Your task to perform on an android device: turn on showing notifications on the lock screen Image 0: 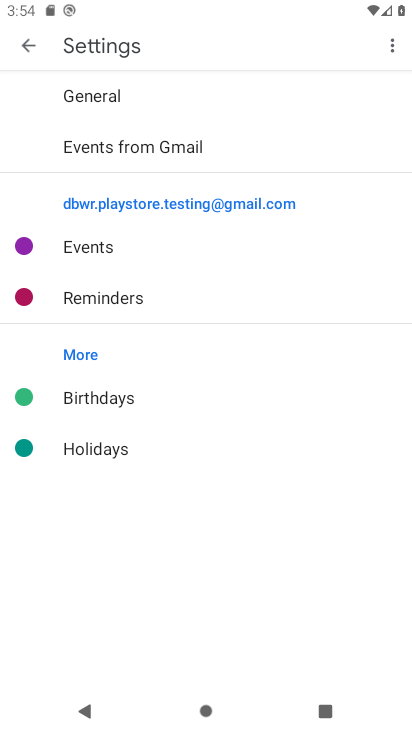
Step 0: press home button
Your task to perform on an android device: turn on showing notifications on the lock screen Image 1: 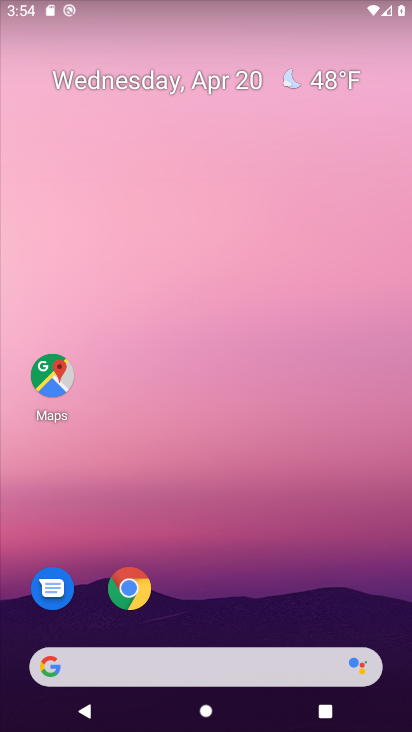
Step 1: drag from (332, 602) to (372, 216)
Your task to perform on an android device: turn on showing notifications on the lock screen Image 2: 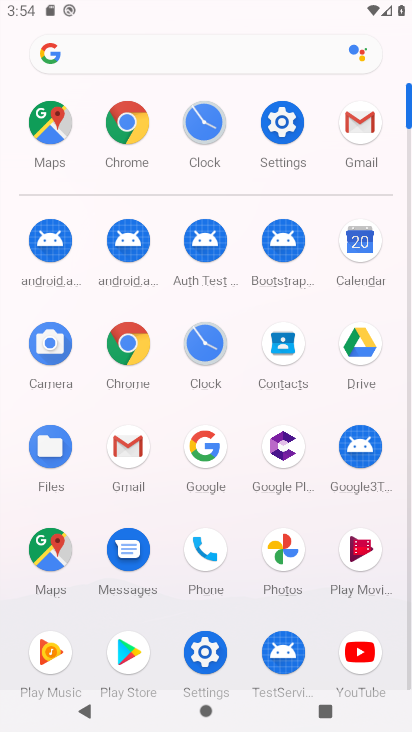
Step 2: click (200, 645)
Your task to perform on an android device: turn on showing notifications on the lock screen Image 3: 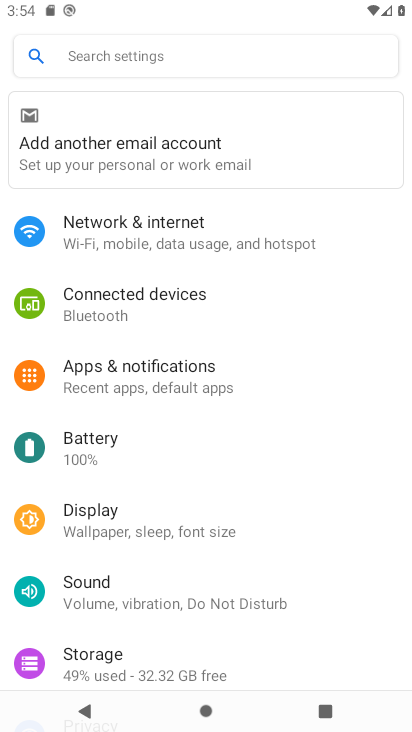
Step 3: drag from (343, 614) to (339, 477)
Your task to perform on an android device: turn on showing notifications on the lock screen Image 4: 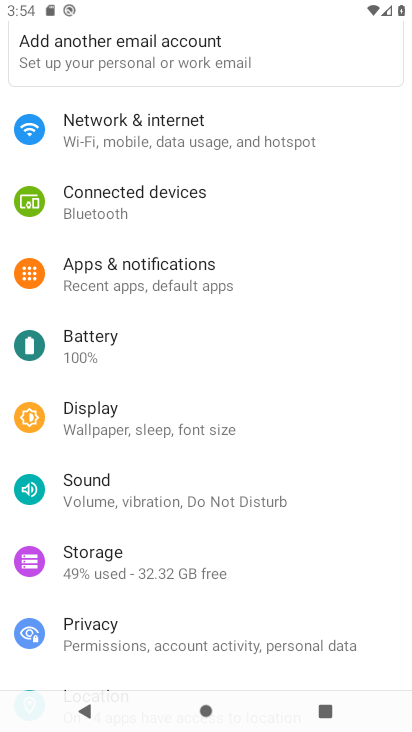
Step 4: drag from (340, 577) to (405, 404)
Your task to perform on an android device: turn on showing notifications on the lock screen Image 5: 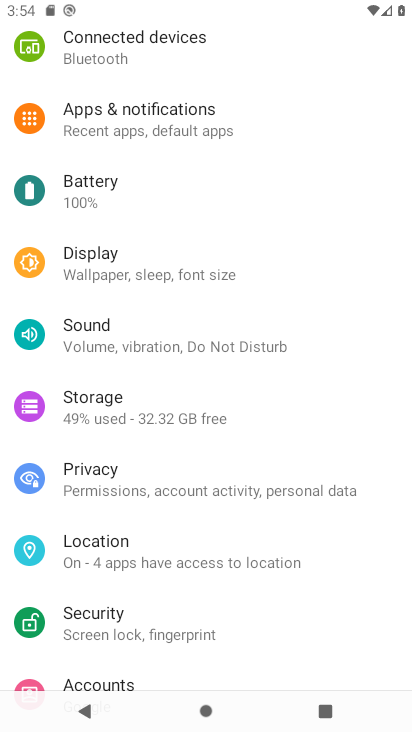
Step 5: drag from (333, 579) to (343, 430)
Your task to perform on an android device: turn on showing notifications on the lock screen Image 6: 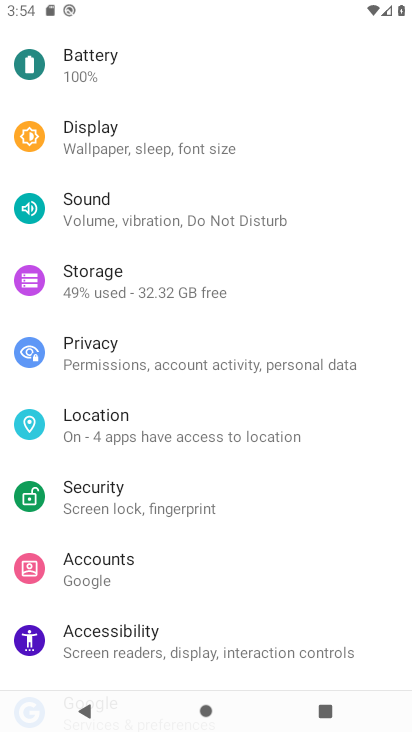
Step 6: drag from (320, 586) to (344, 393)
Your task to perform on an android device: turn on showing notifications on the lock screen Image 7: 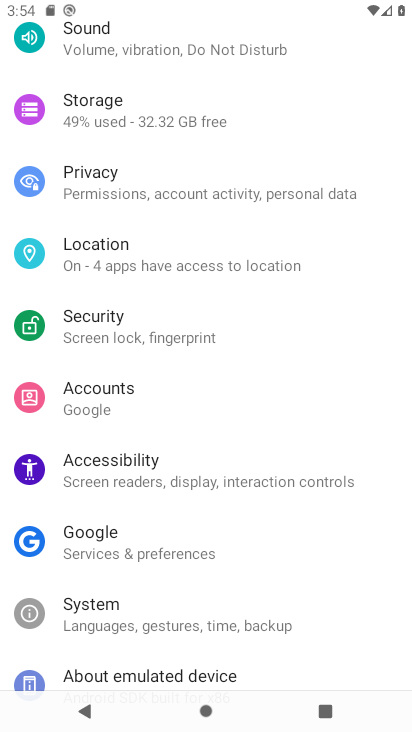
Step 7: drag from (328, 609) to (323, 420)
Your task to perform on an android device: turn on showing notifications on the lock screen Image 8: 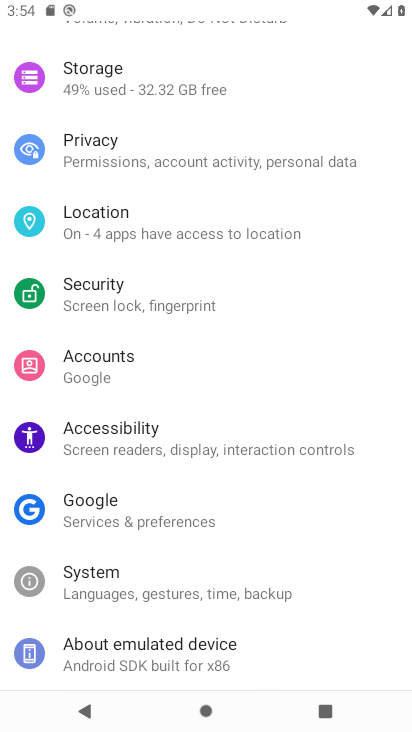
Step 8: drag from (338, 325) to (310, 506)
Your task to perform on an android device: turn on showing notifications on the lock screen Image 9: 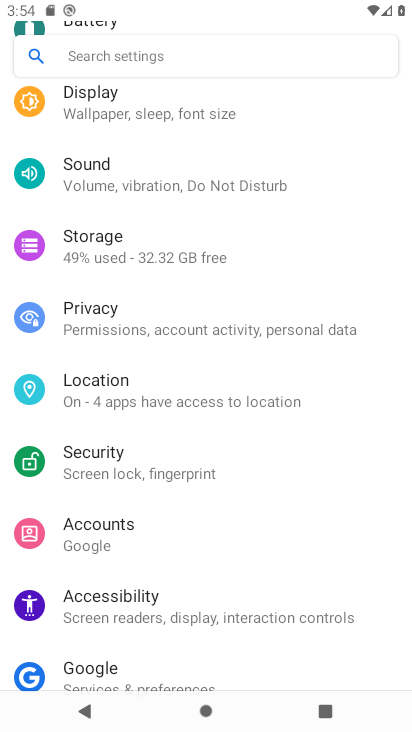
Step 9: drag from (335, 388) to (305, 542)
Your task to perform on an android device: turn on showing notifications on the lock screen Image 10: 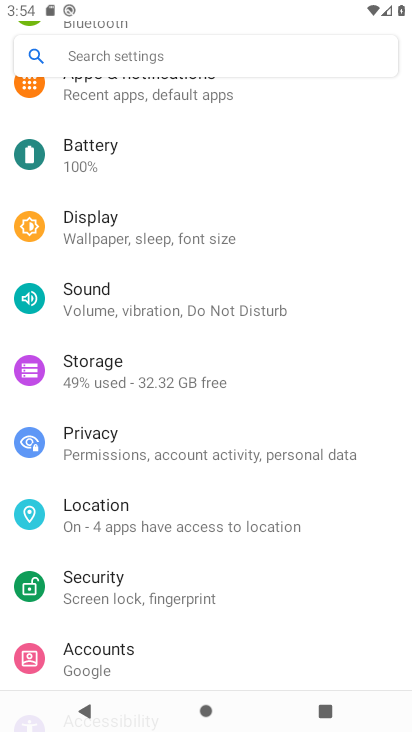
Step 10: drag from (336, 304) to (324, 497)
Your task to perform on an android device: turn on showing notifications on the lock screen Image 11: 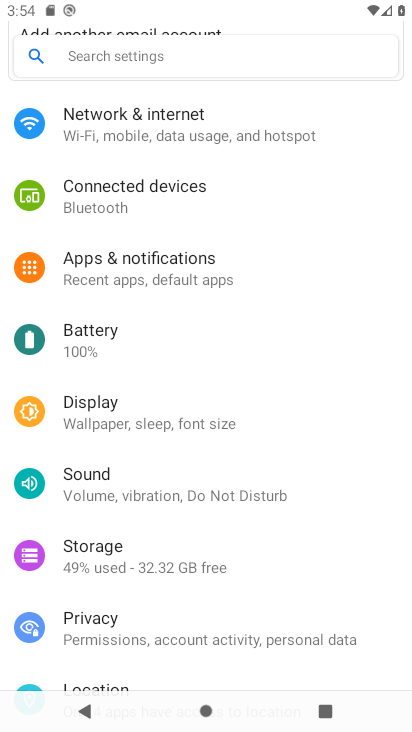
Step 11: drag from (336, 307) to (290, 488)
Your task to perform on an android device: turn on showing notifications on the lock screen Image 12: 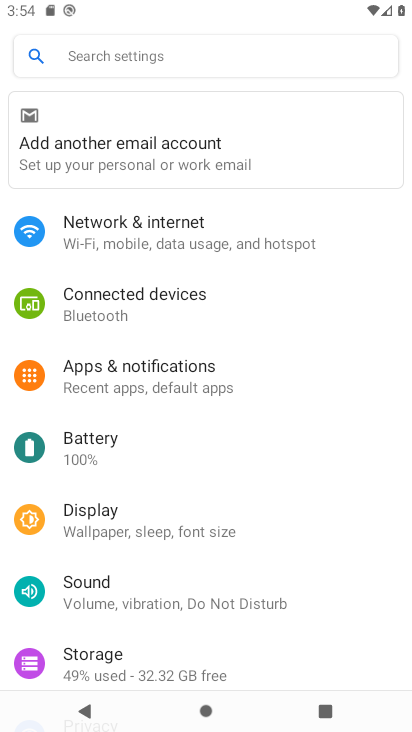
Step 12: drag from (314, 319) to (306, 463)
Your task to perform on an android device: turn on showing notifications on the lock screen Image 13: 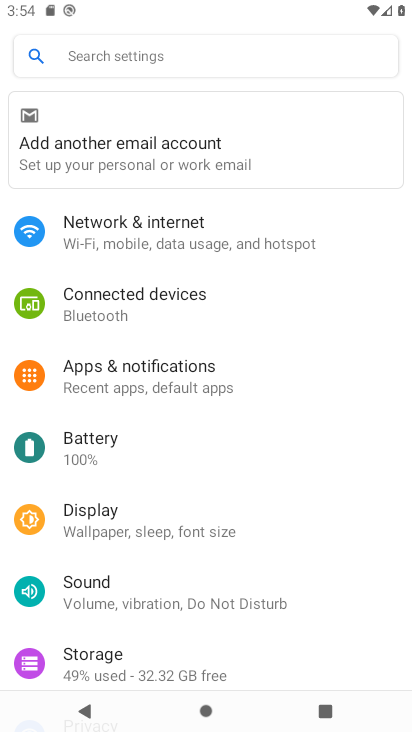
Step 13: click (196, 373)
Your task to perform on an android device: turn on showing notifications on the lock screen Image 14: 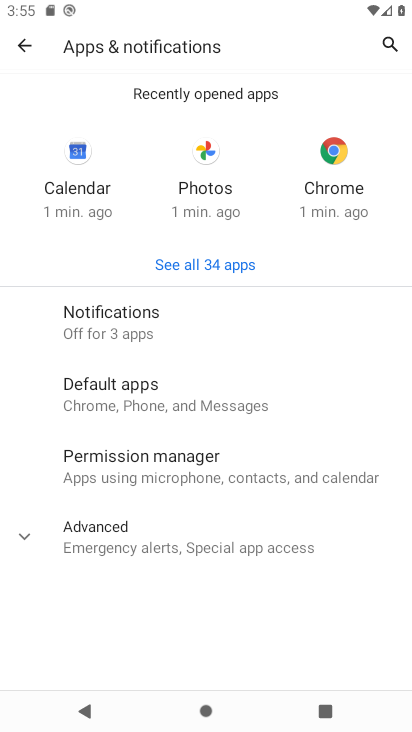
Step 14: click (119, 330)
Your task to perform on an android device: turn on showing notifications on the lock screen Image 15: 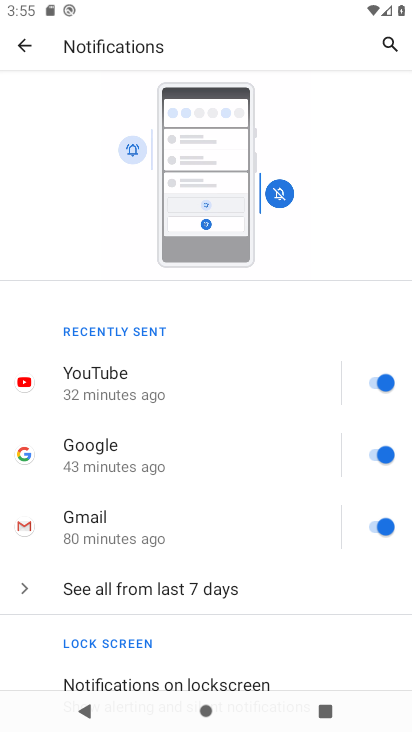
Step 15: drag from (276, 588) to (311, 402)
Your task to perform on an android device: turn on showing notifications on the lock screen Image 16: 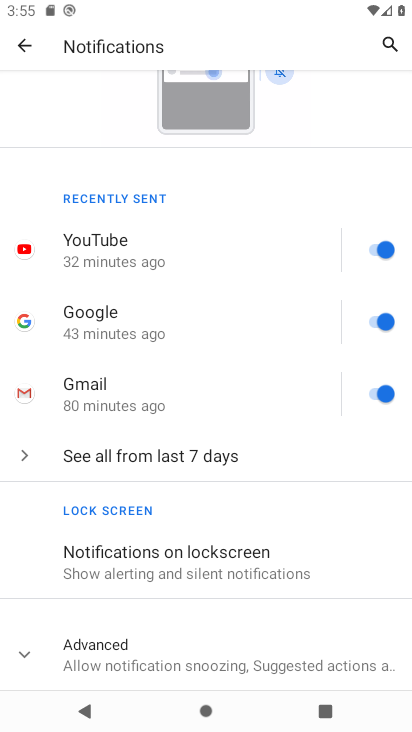
Step 16: drag from (303, 618) to (322, 359)
Your task to perform on an android device: turn on showing notifications on the lock screen Image 17: 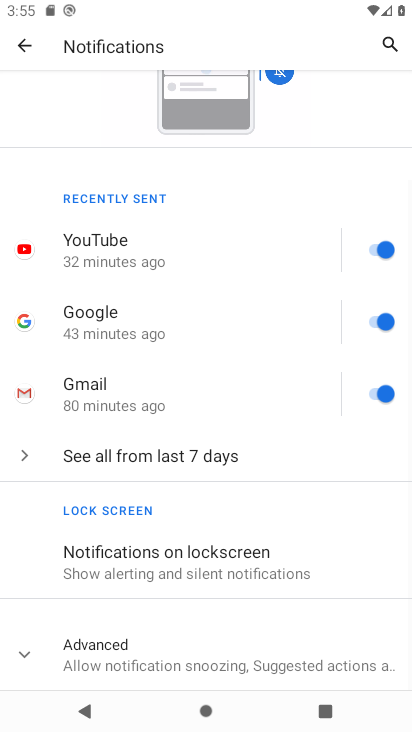
Step 17: click (214, 555)
Your task to perform on an android device: turn on showing notifications on the lock screen Image 18: 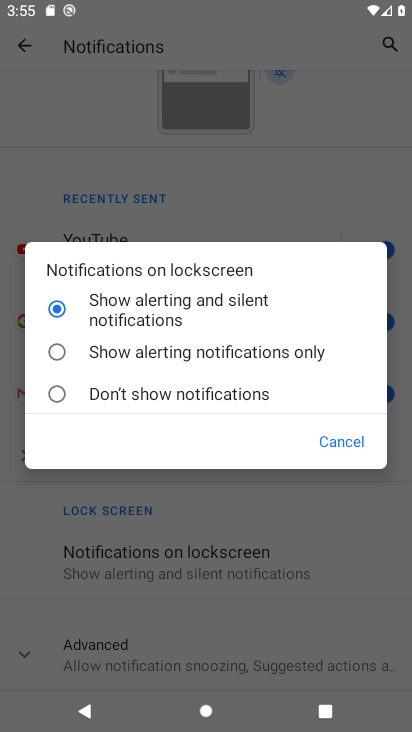
Step 18: task complete